Your task to perform on an android device: open chrome and create a bookmark for the current page Image 0: 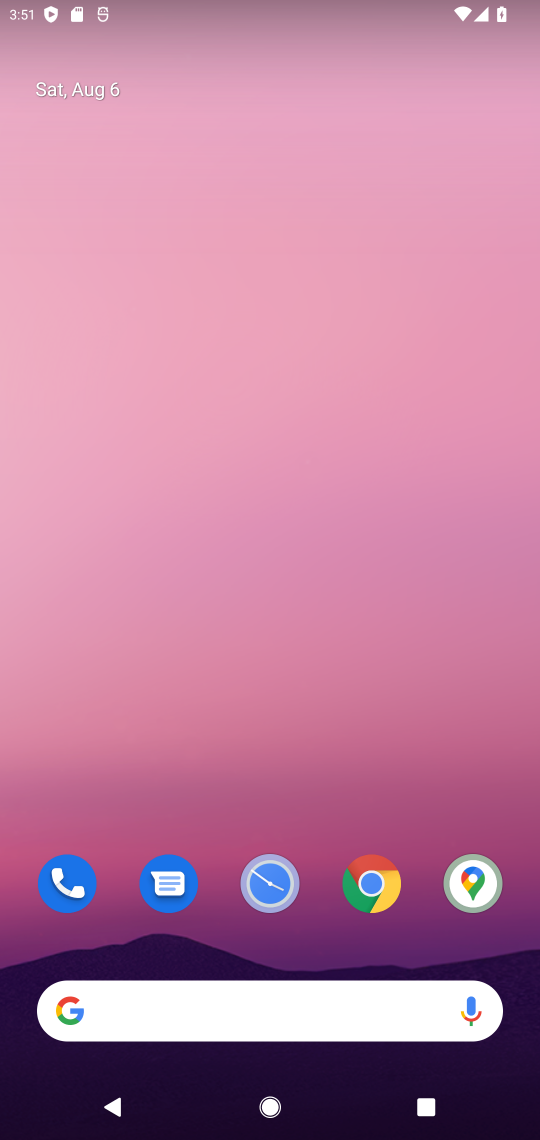
Step 0: drag from (303, 891) to (312, 108)
Your task to perform on an android device: open chrome and create a bookmark for the current page Image 1: 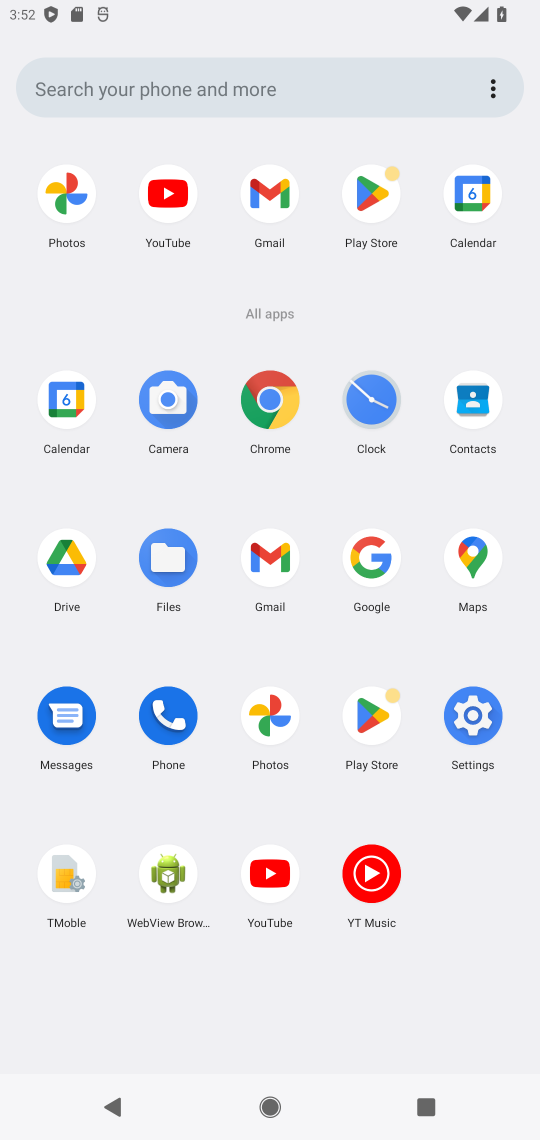
Step 1: click (282, 409)
Your task to perform on an android device: open chrome and create a bookmark for the current page Image 2: 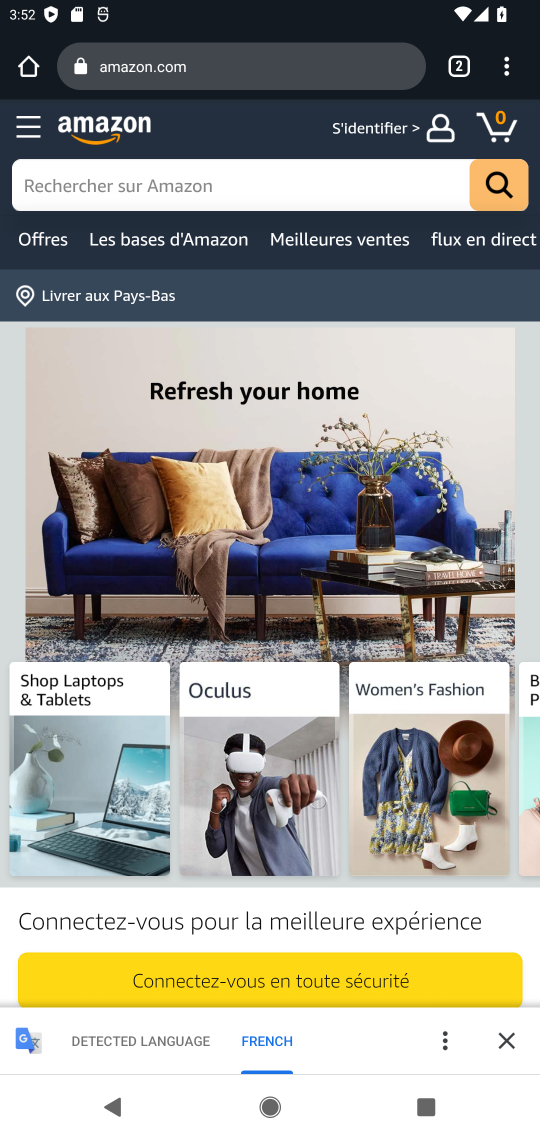
Step 2: click (509, 61)
Your task to perform on an android device: open chrome and create a bookmark for the current page Image 3: 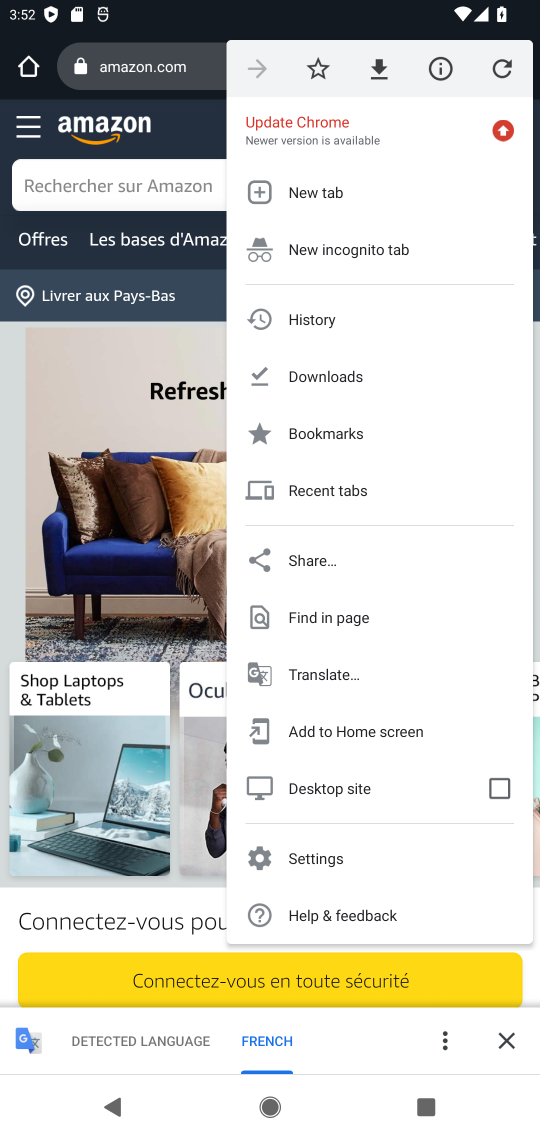
Step 3: click (312, 72)
Your task to perform on an android device: open chrome and create a bookmark for the current page Image 4: 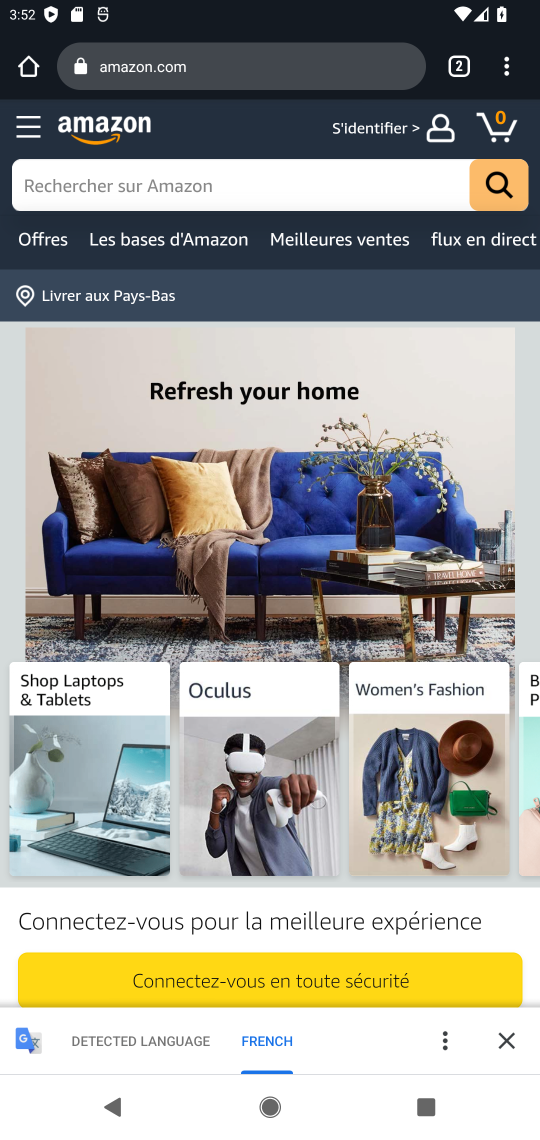
Step 4: task complete